Your task to perform on an android device: Open the Play Movies app and select the watchlist tab. Image 0: 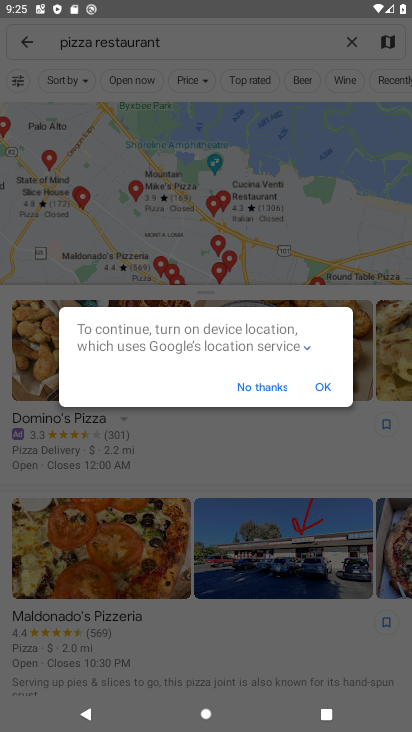
Step 0: press home button
Your task to perform on an android device: Open the Play Movies app and select the watchlist tab. Image 1: 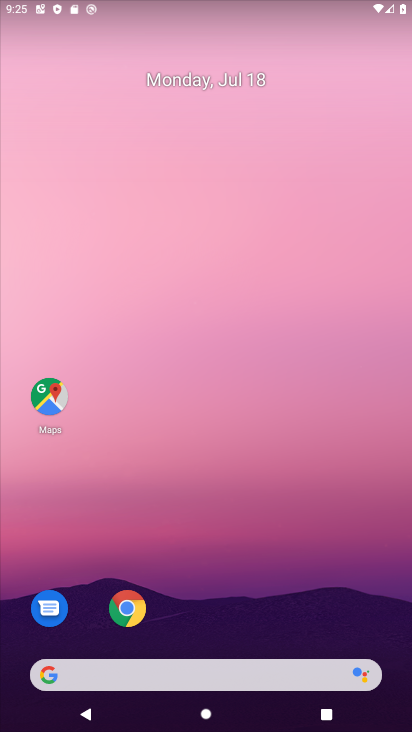
Step 1: drag from (219, 605) to (228, 36)
Your task to perform on an android device: Open the Play Movies app and select the watchlist tab. Image 2: 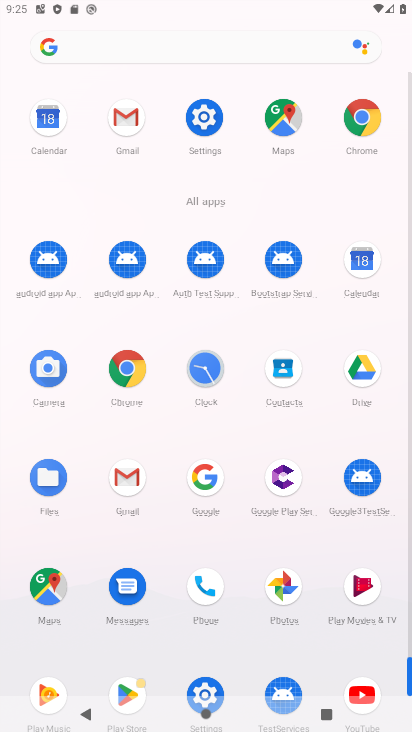
Step 2: click (366, 618)
Your task to perform on an android device: Open the Play Movies app and select the watchlist tab. Image 3: 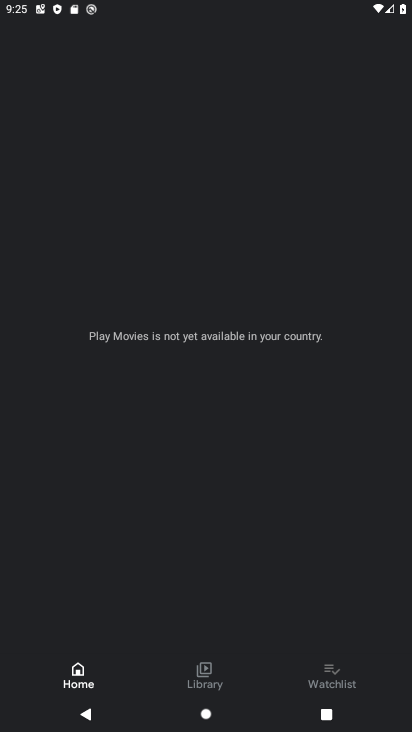
Step 3: click (335, 680)
Your task to perform on an android device: Open the Play Movies app and select the watchlist tab. Image 4: 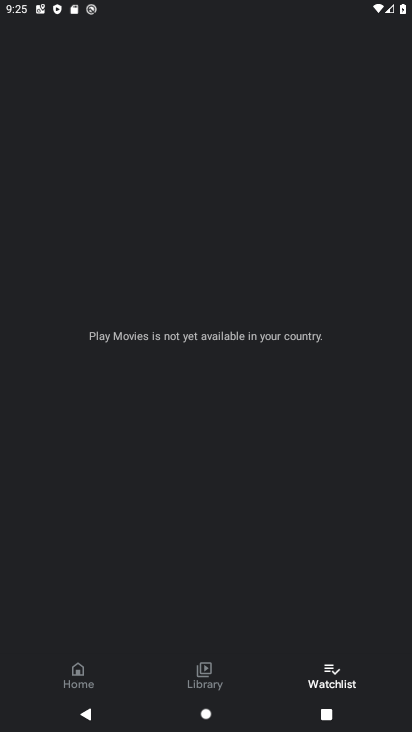
Step 4: task complete